Your task to perform on an android device: Go to Amazon Image 0: 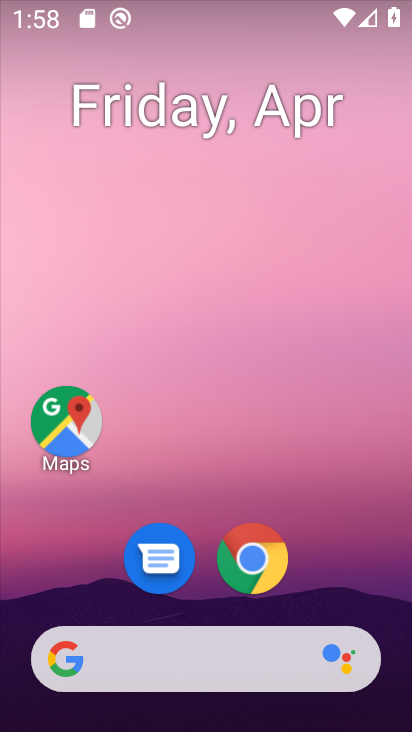
Step 0: click (246, 587)
Your task to perform on an android device: Go to Amazon Image 1: 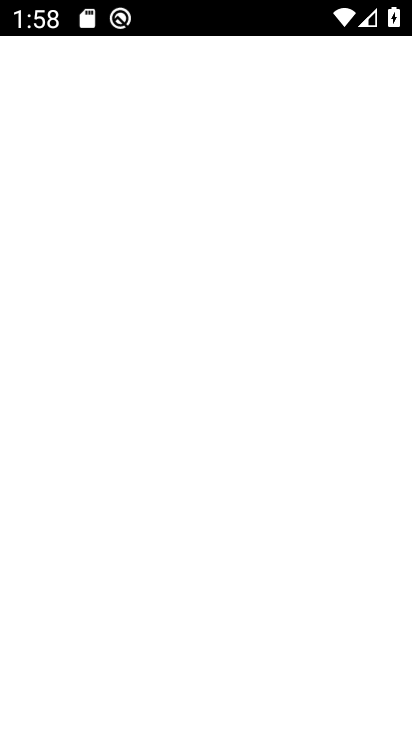
Step 1: click (261, 561)
Your task to perform on an android device: Go to Amazon Image 2: 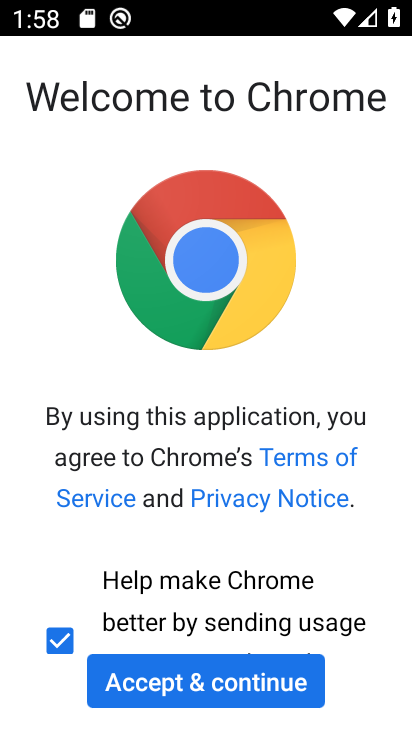
Step 2: click (157, 680)
Your task to perform on an android device: Go to Amazon Image 3: 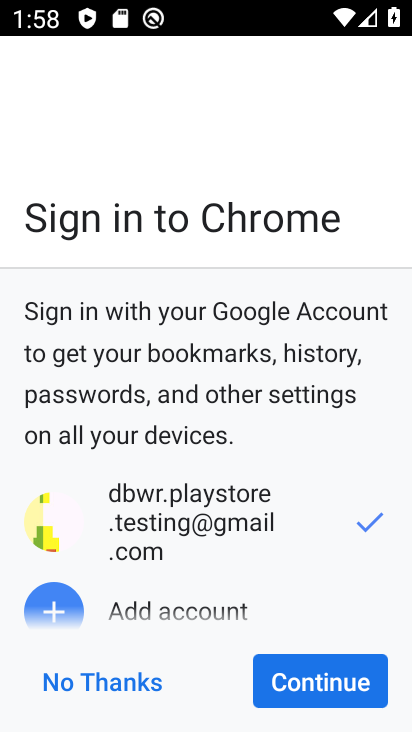
Step 3: click (78, 683)
Your task to perform on an android device: Go to Amazon Image 4: 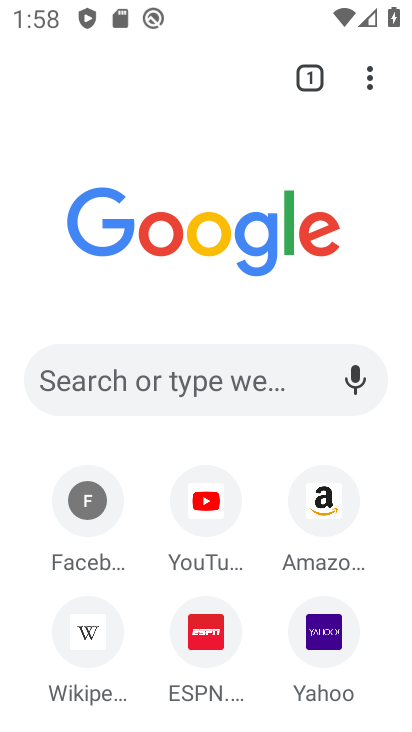
Step 4: click (334, 502)
Your task to perform on an android device: Go to Amazon Image 5: 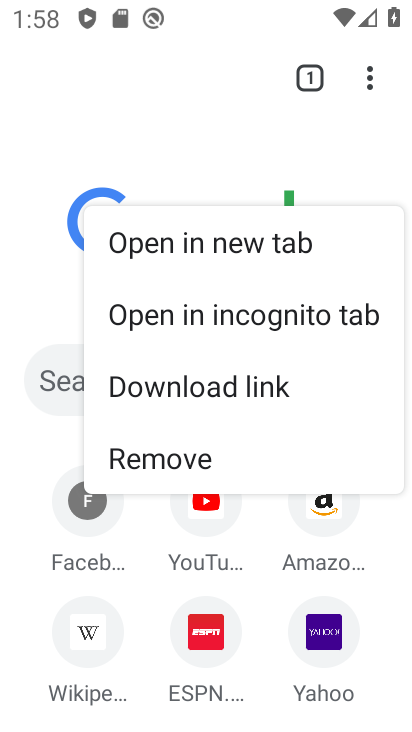
Step 5: click (328, 512)
Your task to perform on an android device: Go to Amazon Image 6: 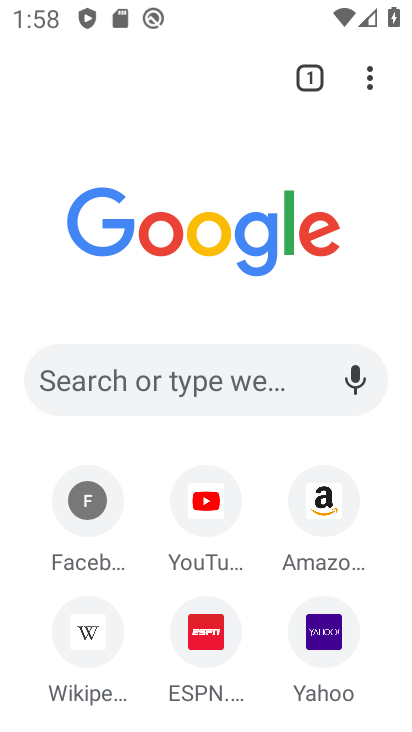
Step 6: click (311, 484)
Your task to perform on an android device: Go to Amazon Image 7: 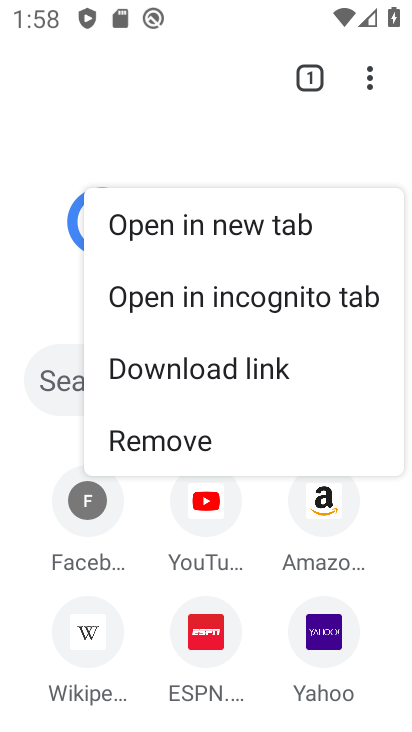
Step 7: click (318, 498)
Your task to perform on an android device: Go to Amazon Image 8: 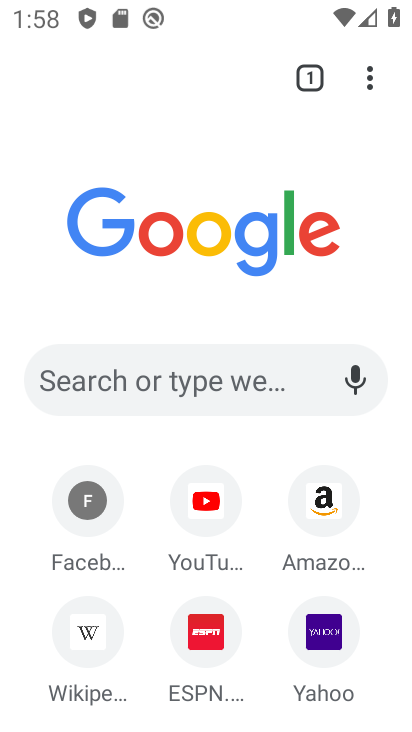
Step 8: click (325, 503)
Your task to perform on an android device: Go to Amazon Image 9: 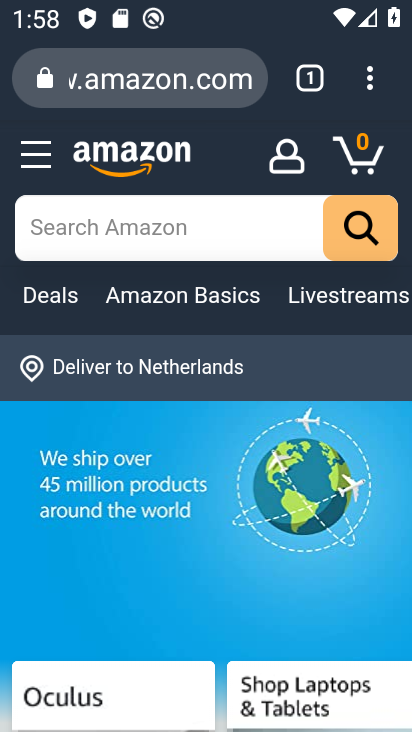
Step 9: task complete